Your task to perform on an android device: open app "Viber Messenger" (install if not already installed) Image 0: 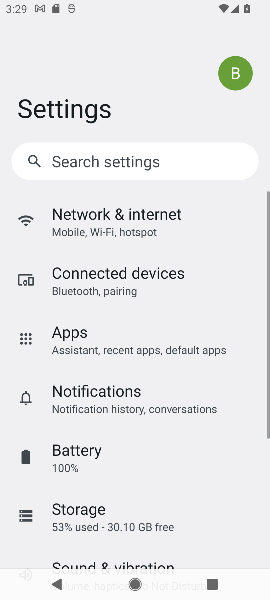
Step 0: press home button
Your task to perform on an android device: open app "Viber Messenger" (install if not already installed) Image 1: 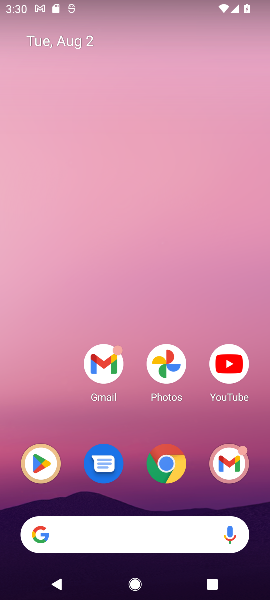
Step 1: click (47, 459)
Your task to perform on an android device: open app "Viber Messenger" (install if not already installed) Image 2: 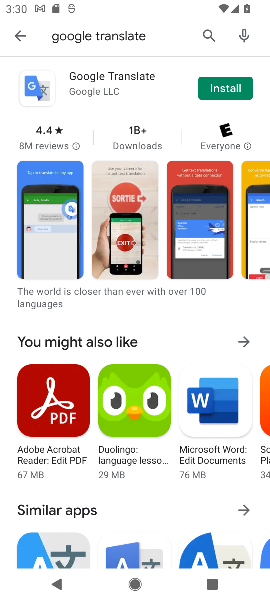
Step 2: click (201, 34)
Your task to perform on an android device: open app "Viber Messenger" (install if not already installed) Image 3: 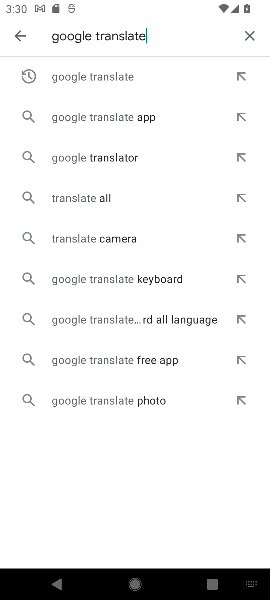
Step 3: click (251, 31)
Your task to perform on an android device: open app "Viber Messenger" (install if not already installed) Image 4: 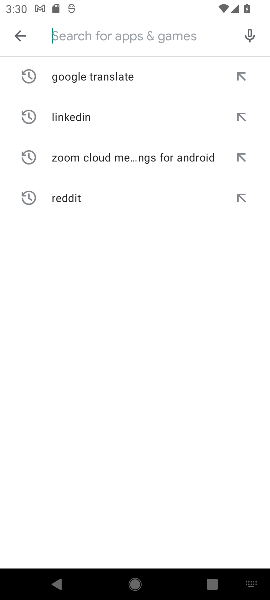
Step 4: type "Viber Messenger"
Your task to perform on an android device: open app "Viber Messenger" (install if not already installed) Image 5: 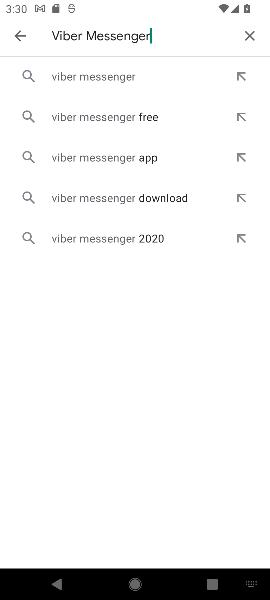
Step 5: click (102, 77)
Your task to perform on an android device: open app "Viber Messenger" (install if not already installed) Image 6: 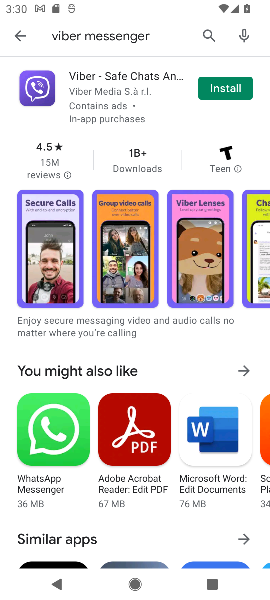
Step 6: click (229, 88)
Your task to perform on an android device: open app "Viber Messenger" (install if not already installed) Image 7: 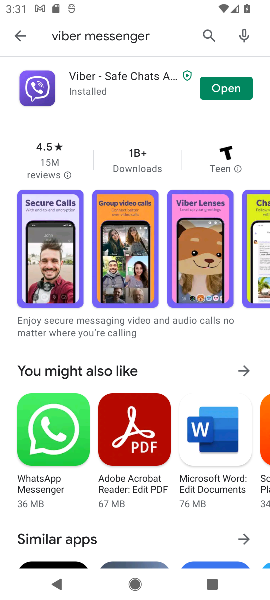
Step 7: click (237, 85)
Your task to perform on an android device: open app "Viber Messenger" (install if not already installed) Image 8: 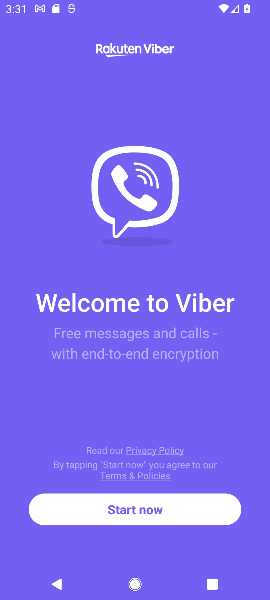
Step 8: task complete